Your task to perform on an android device: turn off smart reply in the gmail app Image 0: 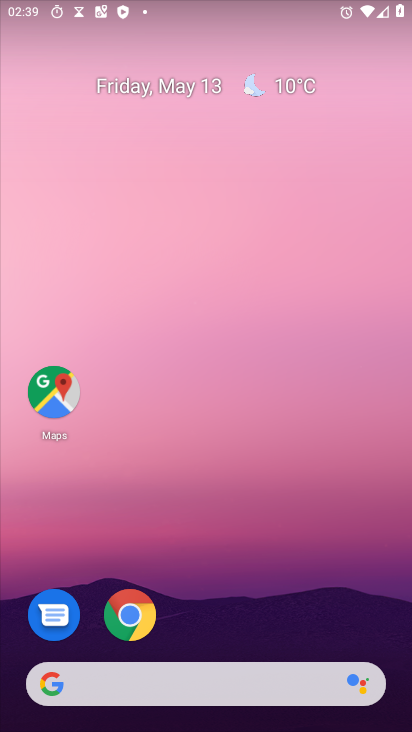
Step 0: drag from (200, 583) to (65, 79)
Your task to perform on an android device: turn off smart reply in the gmail app Image 1: 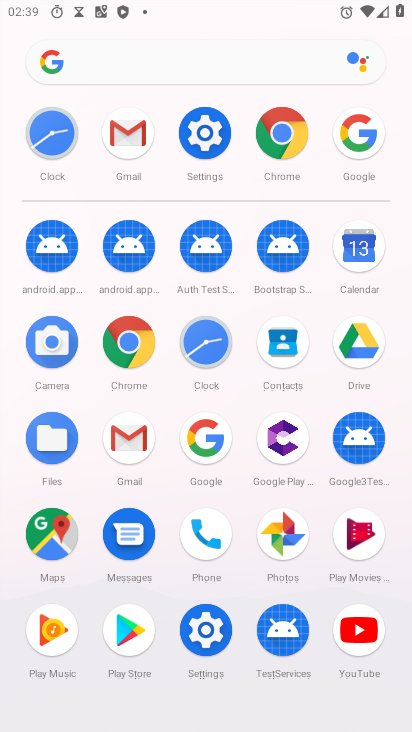
Step 1: click (125, 434)
Your task to perform on an android device: turn off smart reply in the gmail app Image 2: 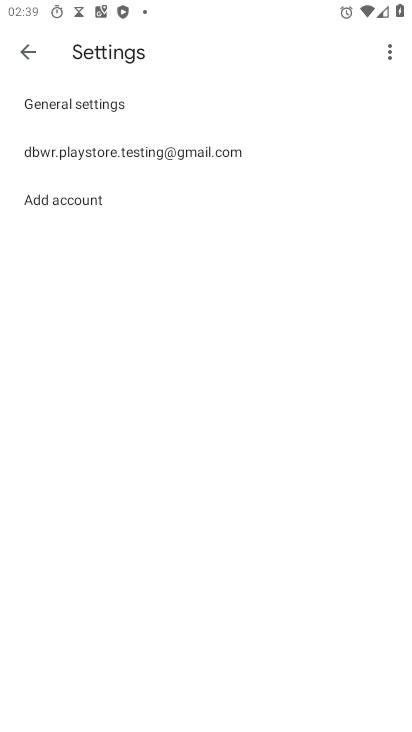
Step 2: click (103, 162)
Your task to perform on an android device: turn off smart reply in the gmail app Image 3: 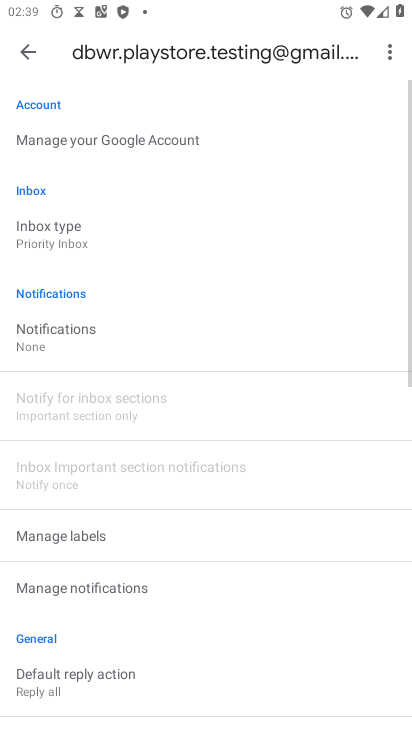
Step 3: drag from (117, 675) to (148, 271)
Your task to perform on an android device: turn off smart reply in the gmail app Image 4: 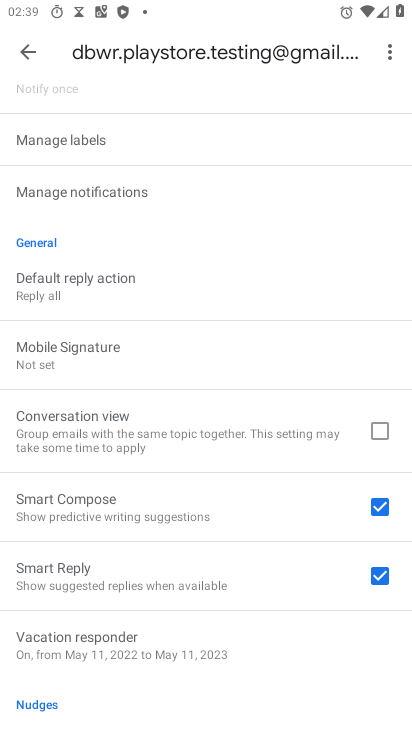
Step 4: click (371, 574)
Your task to perform on an android device: turn off smart reply in the gmail app Image 5: 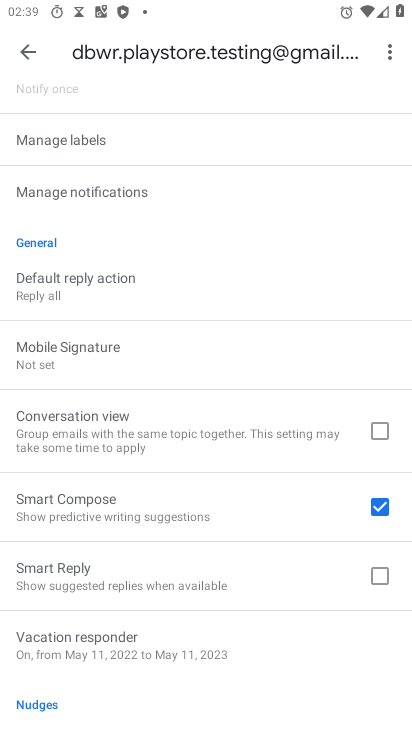
Step 5: task complete